Your task to perform on an android device: visit the assistant section in the google photos Image 0: 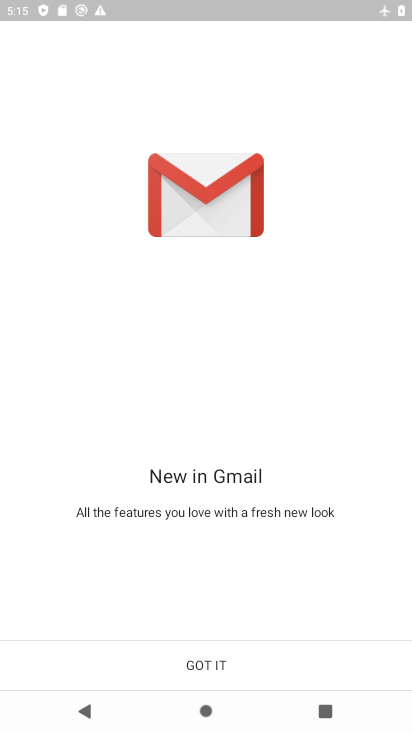
Step 0: press home button
Your task to perform on an android device: visit the assistant section in the google photos Image 1: 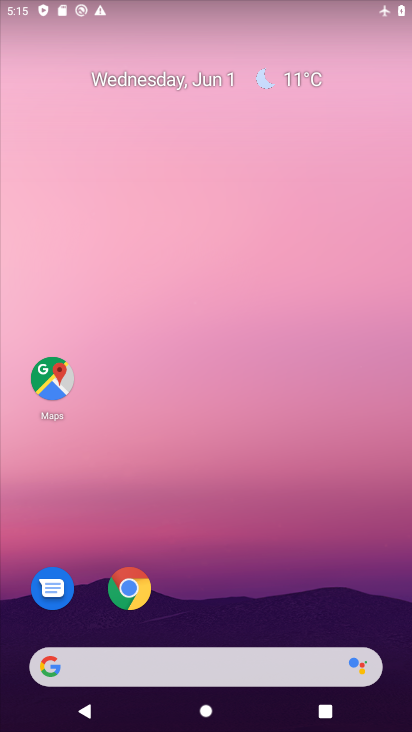
Step 1: drag from (229, 644) to (301, 122)
Your task to perform on an android device: visit the assistant section in the google photos Image 2: 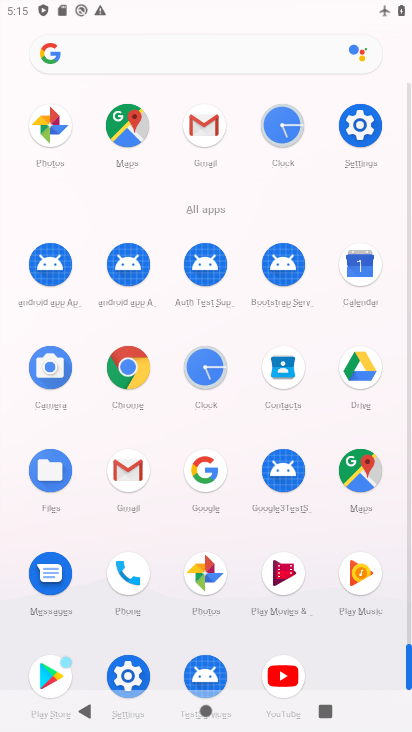
Step 2: click (233, 594)
Your task to perform on an android device: visit the assistant section in the google photos Image 3: 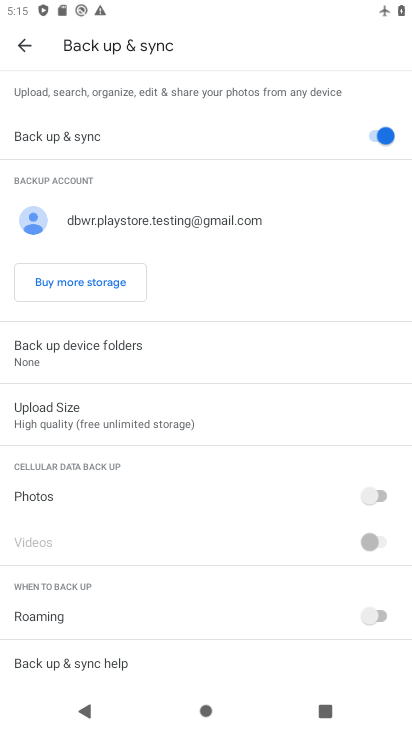
Step 3: click (44, 54)
Your task to perform on an android device: visit the assistant section in the google photos Image 4: 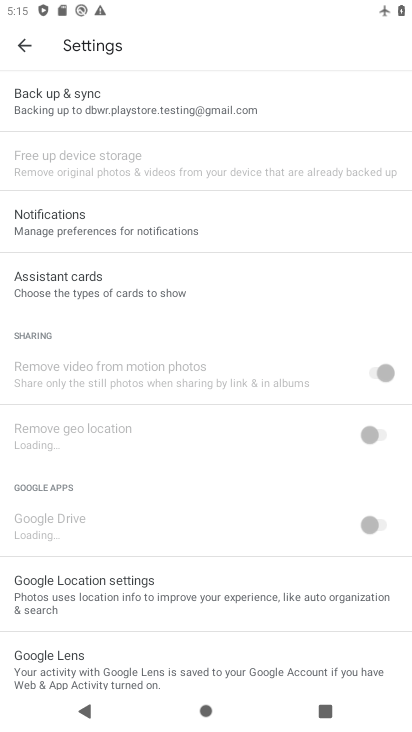
Step 4: click (43, 52)
Your task to perform on an android device: visit the assistant section in the google photos Image 5: 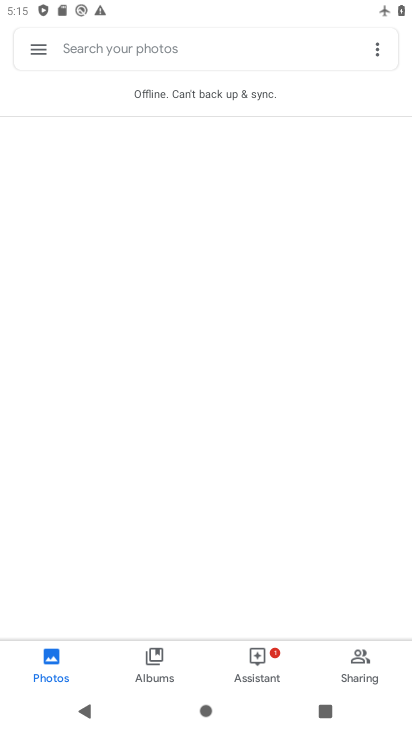
Step 5: click (249, 647)
Your task to perform on an android device: visit the assistant section in the google photos Image 6: 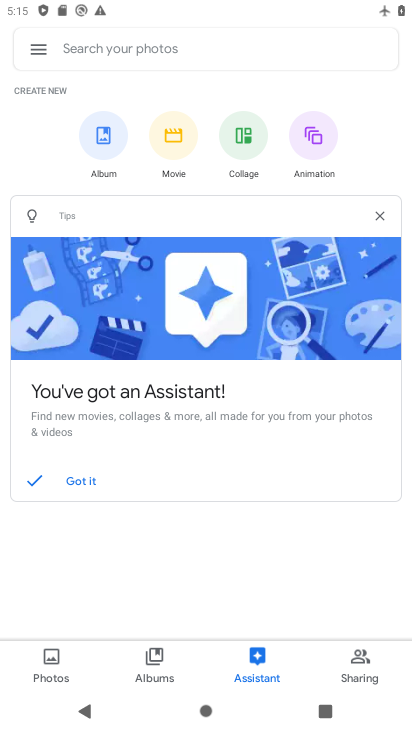
Step 6: task complete